Your task to perform on an android device: Open calendar and show me the third week of next month Image 0: 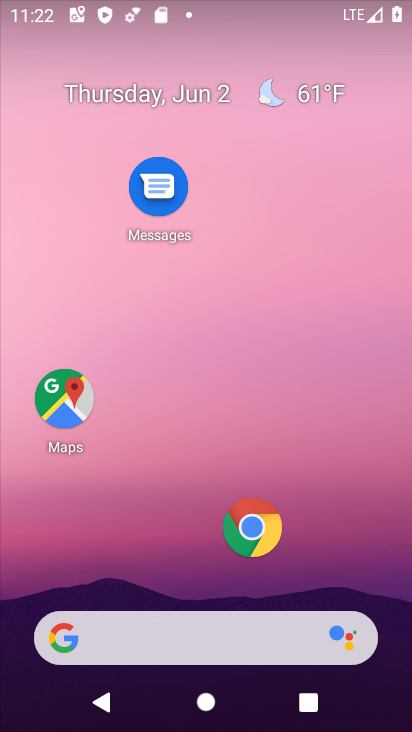
Step 0: press home button
Your task to perform on an android device: Open calendar and show me the third week of next month Image 1: 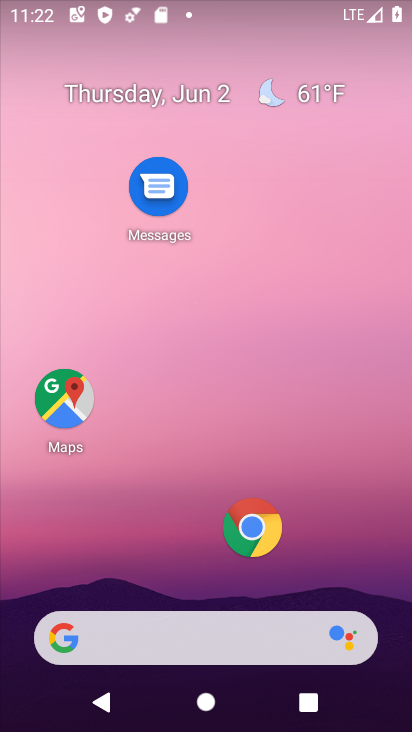
Step 1: drag from (205, 573) to (224, 97)
Your task to perform on an android device: Open calendar and show me the third week of next month Image 2: 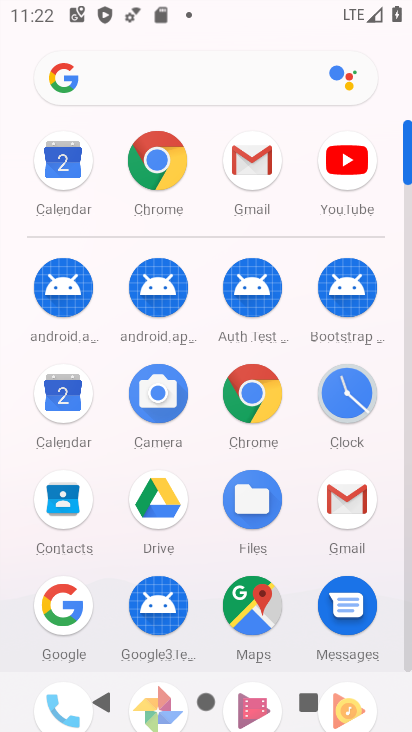
Step 2: click (61, 157)
Your task to perform on an android device: Open calendar and show me the third week of next month Image 3: 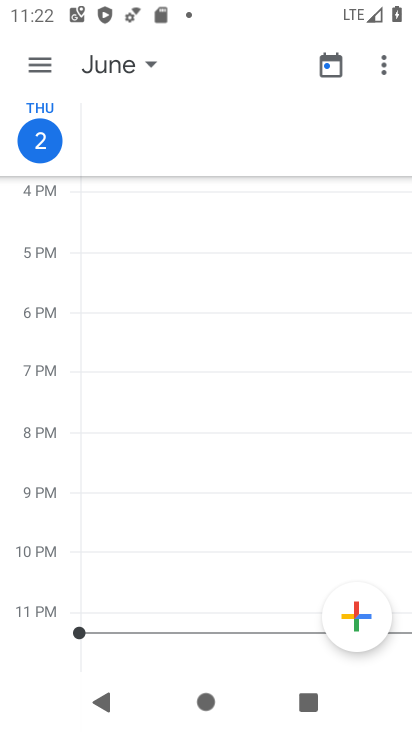
Step 3: click (151, 61)
Your task to perform on an android device: Open calendar and show me the third week of next month Image 4: 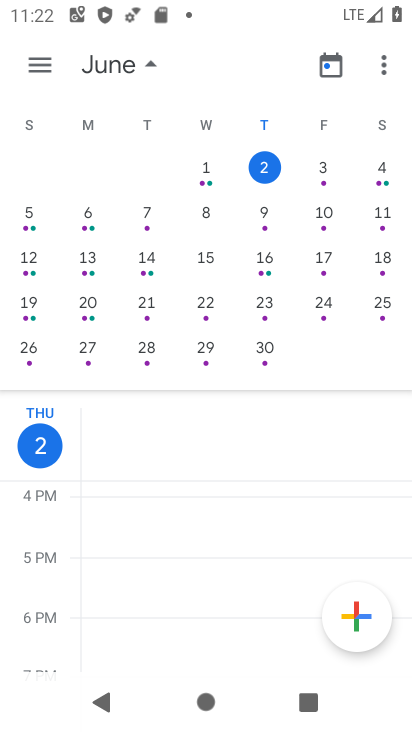
Step 4: drag from (369, 227) to (12, 254)
Your task to perform on an android device: Open calendar and show me the third week of next month Image 5: 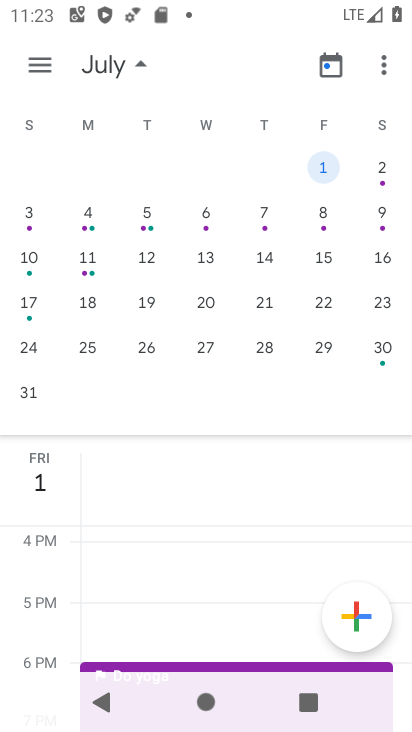
Step 5: click (27, 298)
Your task to perform on an android device: Open calendar and show me the third week of next month Image 6: 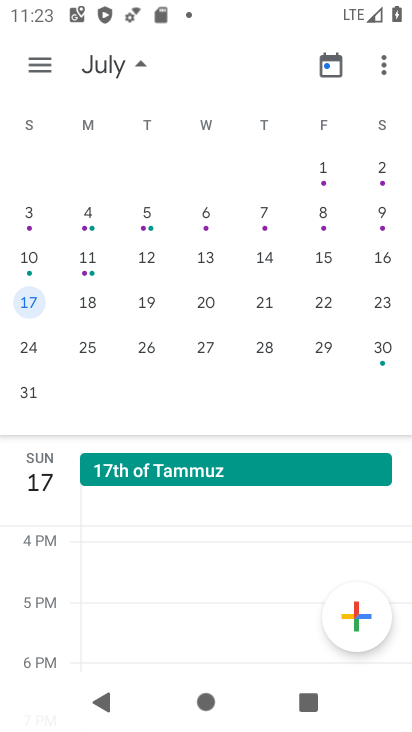
Step 6: click (143, 56)
Your task to perform on an android device: Open calendar and show me the third week of next month Image 7: 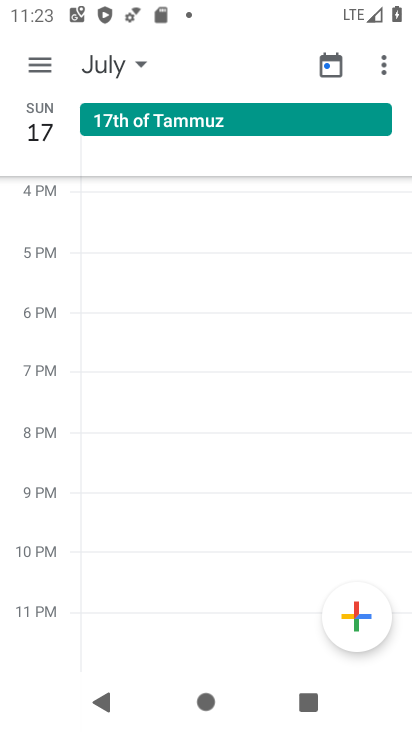
Step 7: task complete